Your task to perform on an android device: Go to Android settings Image 0: 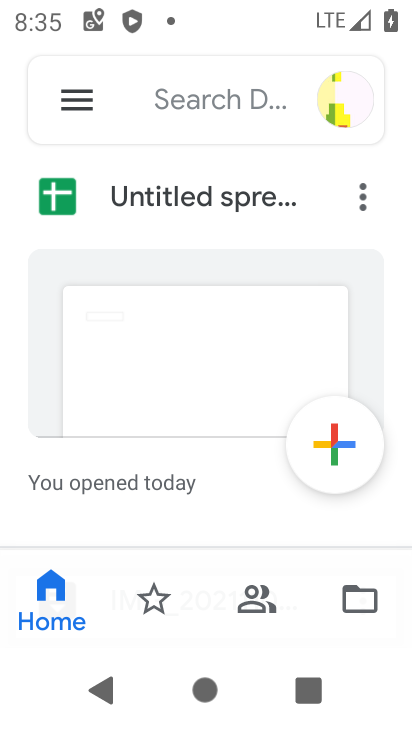
Step 0: press home button
Your task to perform on an android device: Go to Android settings Image 1: 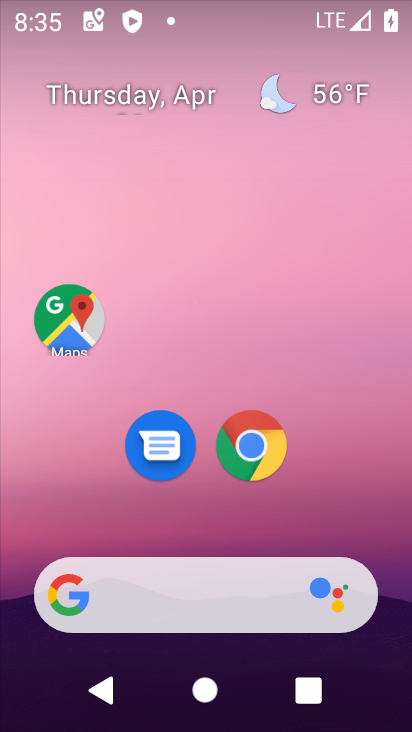
Step 1: drag from (384, 541) to (352, 2)
Your task to perform on an android device: Go to Android settings Image 2: 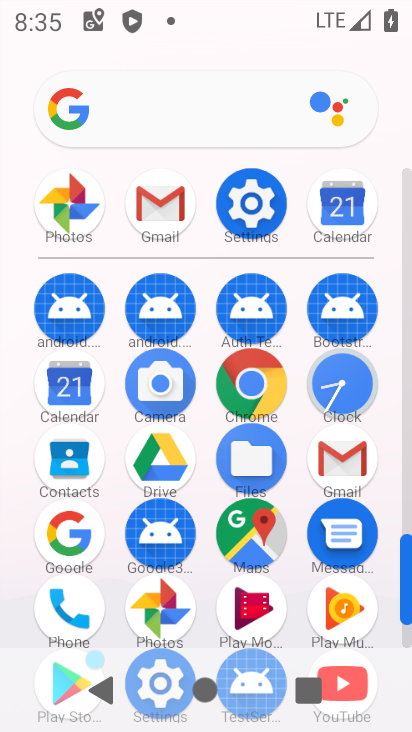
Step 2: click (241, 201)
Your task to perform on an android device: Go to Android settings Image 3: 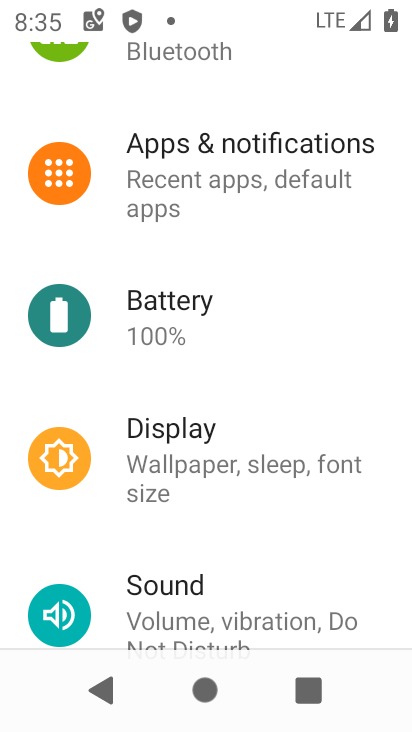
Step 3: task complete